Your task to perform on an android device: Go to Google Image 0: 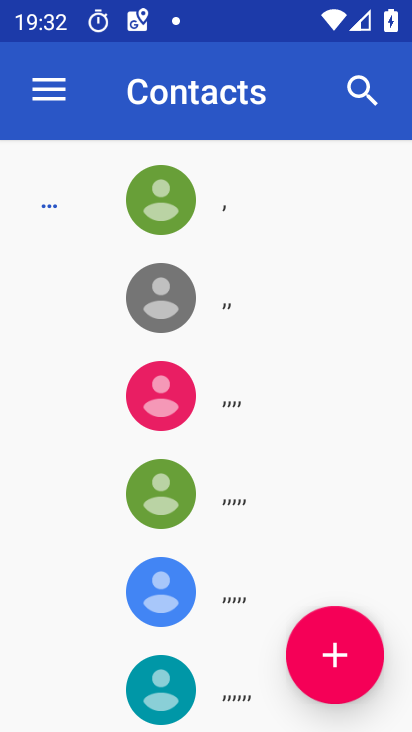
Step 0: press home button
Your task to perform on an android device: Go to Google Image 1: 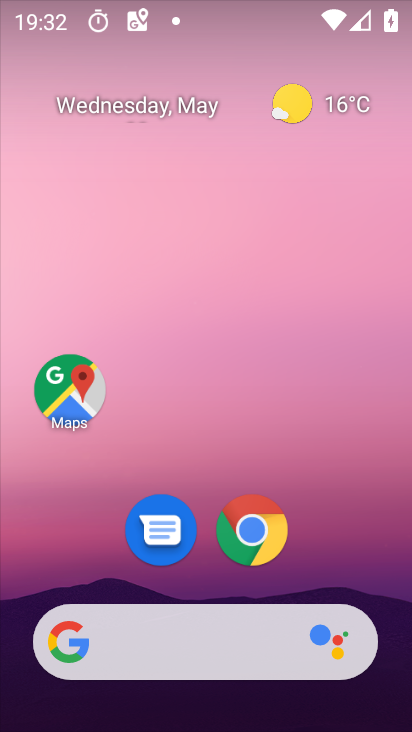
Step 1: drag from (189, 585) to (232, 204)
Your task to perform on an android device: Go to Google Image 2: 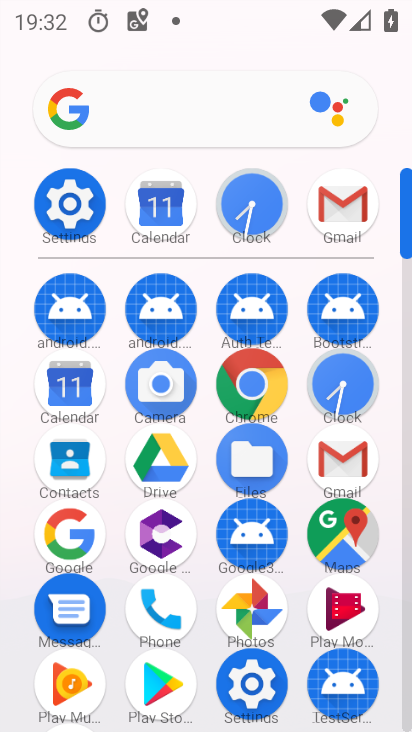
Step 2: click (65, 535)
Your task to perform on an android device: Go to Google Image 3: 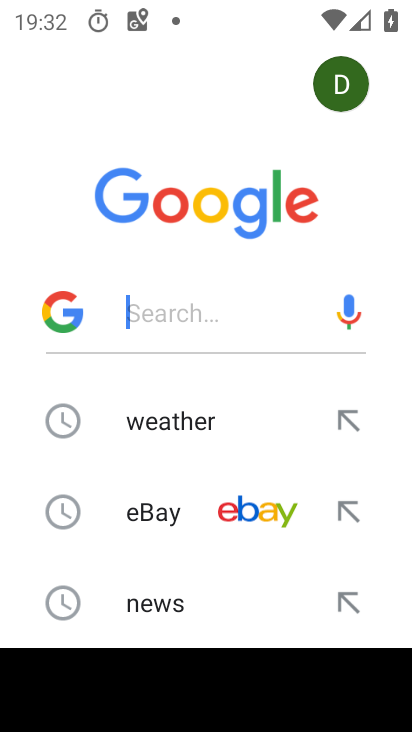
Step 3: task complete